Your task to perform on an android device: delete the emails in spam in the gmail app Image 0: 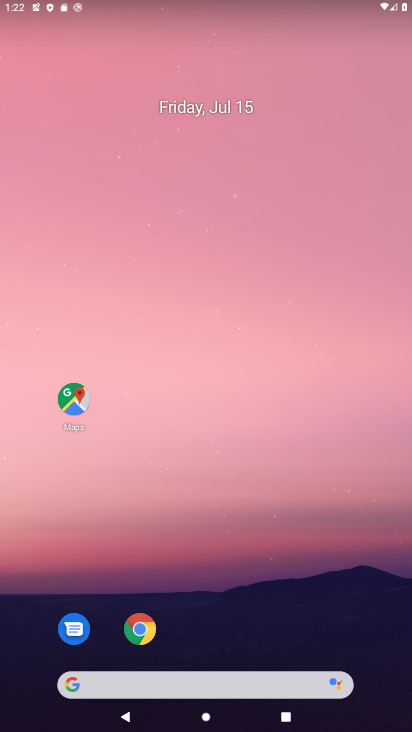
Step 0: drag from (310, 587) to (204, 81)
Your task to perform on an android device: delete the emails in spam in the gmail app Image 1: 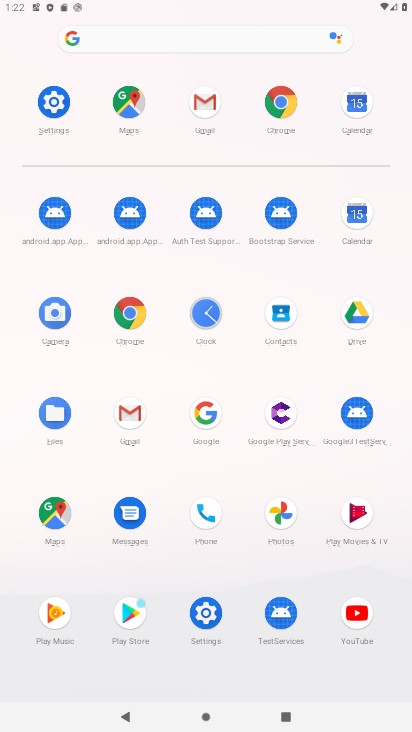
Step 1: click (204, 108)
Your task to perform on an android device: delete the emails in spam in the gmail app Image 2: 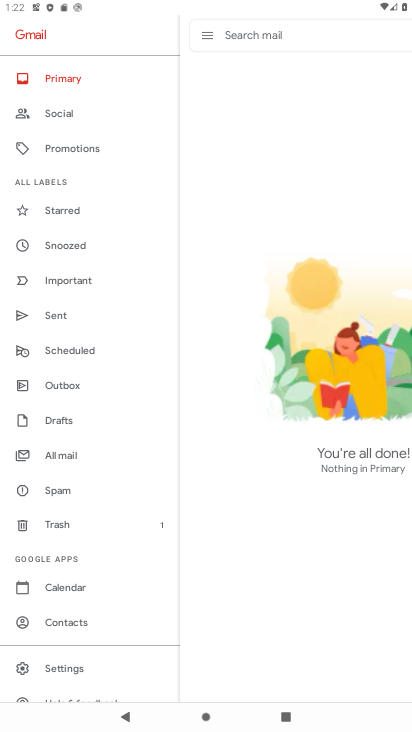
Step 2: click (65, 492)
Your task to perform on an android device: delete the emails in spam in the gmail app Image 3: 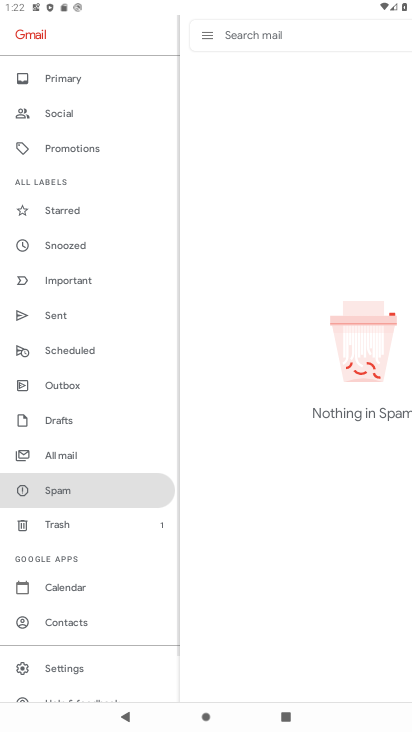
Step 3: task complete